Your task to perform on an android device: create a new album in the google photos Image 0: 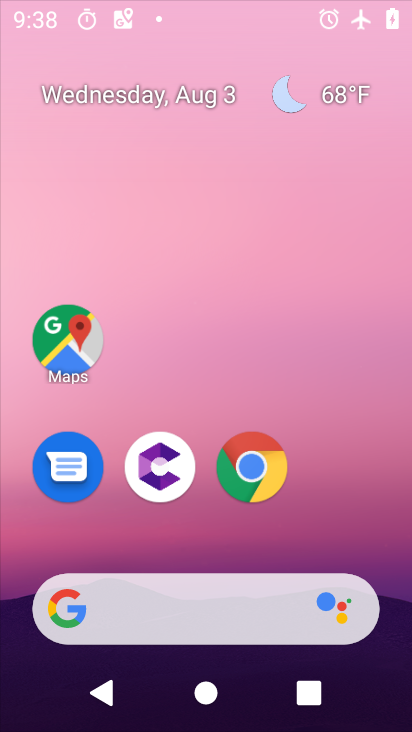
Step 0: drag from (317, 541) to (290, 50)
Your task to perform on an android device: create a new album in the google photos Image 1: 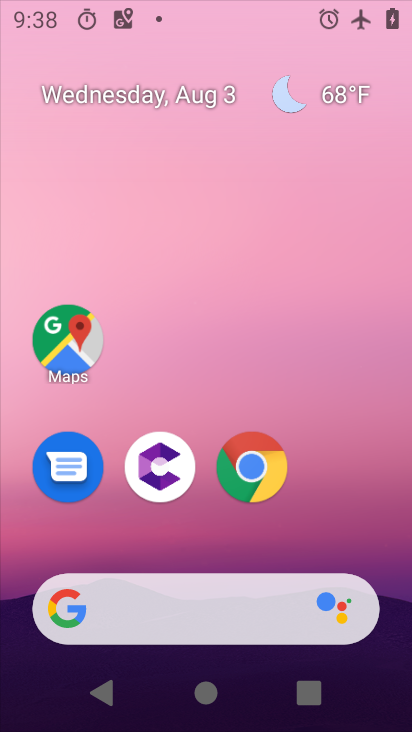
Step 1: drag from (331, 409) to (357, 148)
Your task to perform on an android device: create a new album in the google photos Image 2: 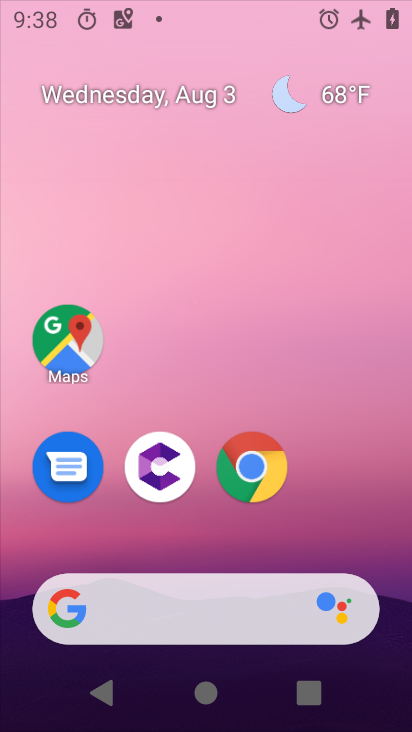
Step 2: click (309, 320)
Your task to perform on an android device: create a new album in the google photos Image 3: 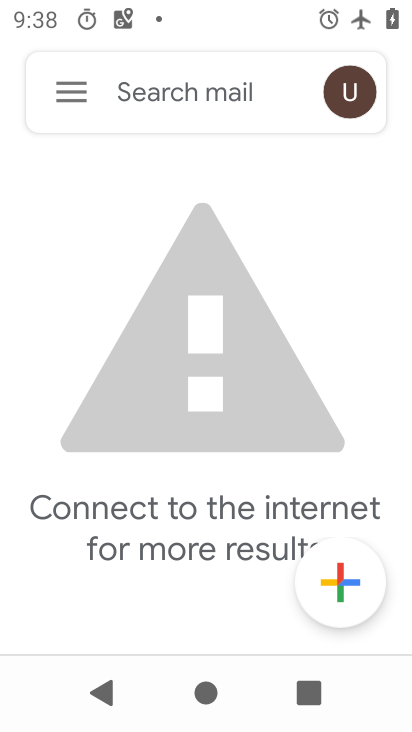
Step 3: drag from (345, 532) to (392, 290)
Your task to perform on an android device: create a new album in the google photos Image 4: 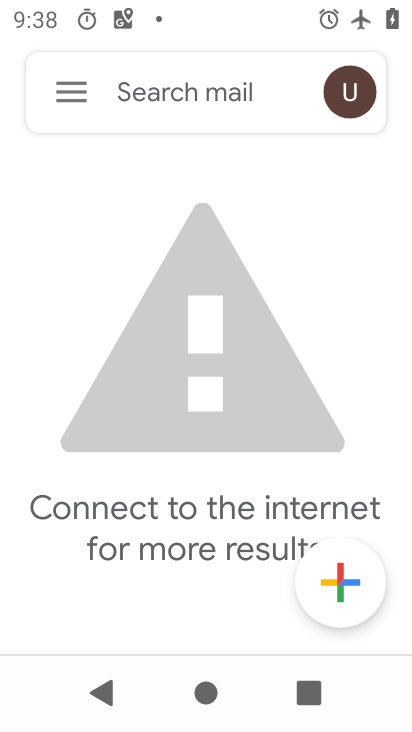
Step 4: press home button
Your task to perform on an android device: create a new album in the google photos Image 5: 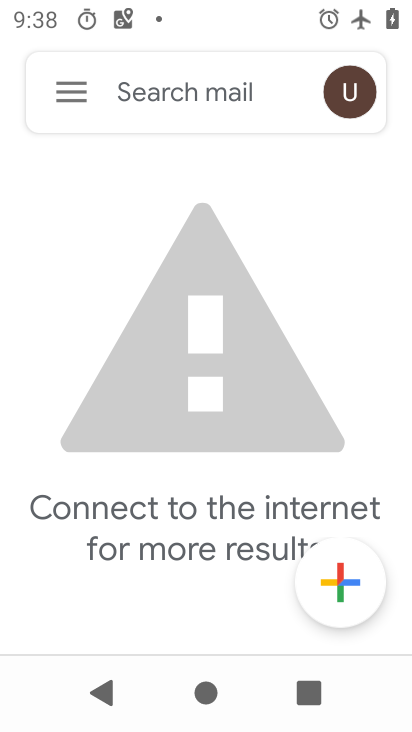
Step 5: press home button
Your task to perform on an android device: create a new album in the google photos Image 6: 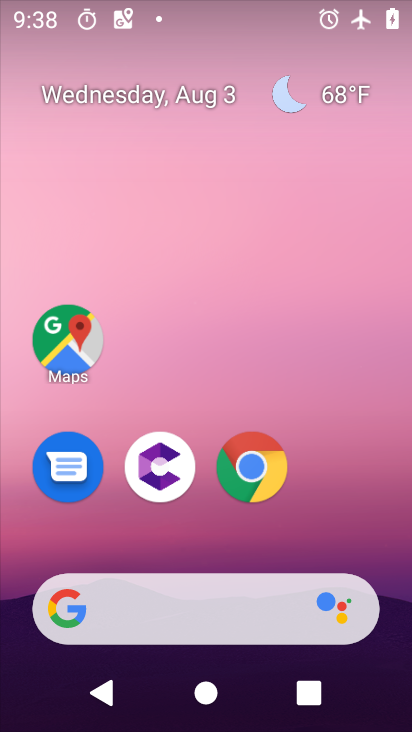
Step 6: drag from (361, 506) to (334, 83)
Your task to perform on an android device: create a new album in the google photos Image 7: 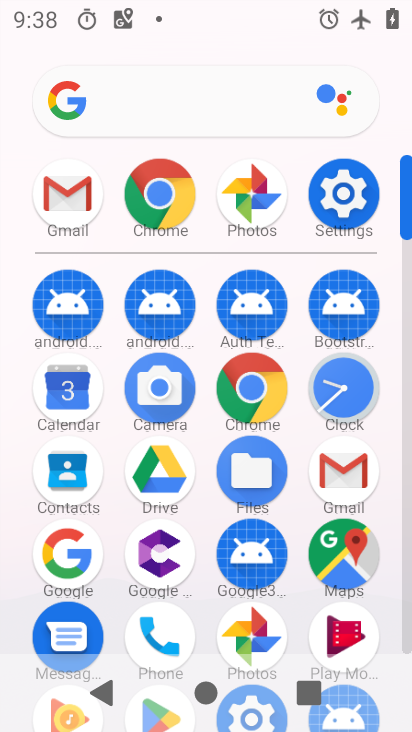
Step 7: click (267, 630)
Your task to perform on an android device: create a new album in the google photos Image 8: 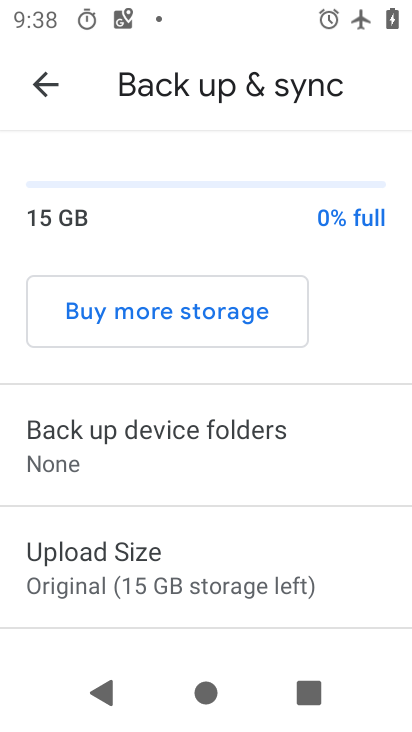
Step 8: press back button
Your task to perform on an android device: create a new album in the google photos Image 9: 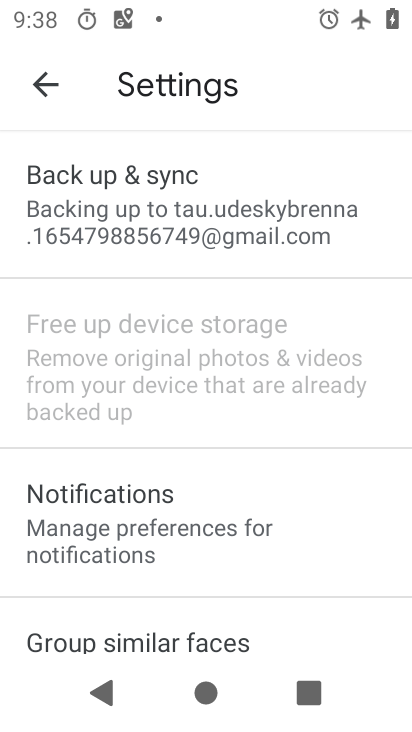
Step 9: press back button
Your task to perform on an android device: create a new album in the google photos Image 10: 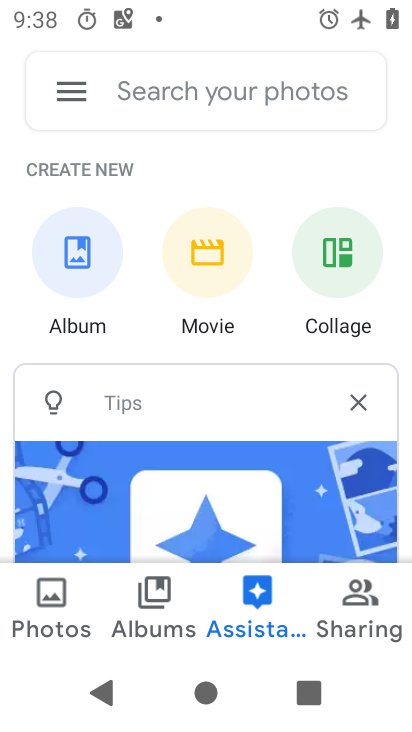
Step 10: click (153, 586)
Your task to perform on an android device: create a new album in the google photos Image 11: 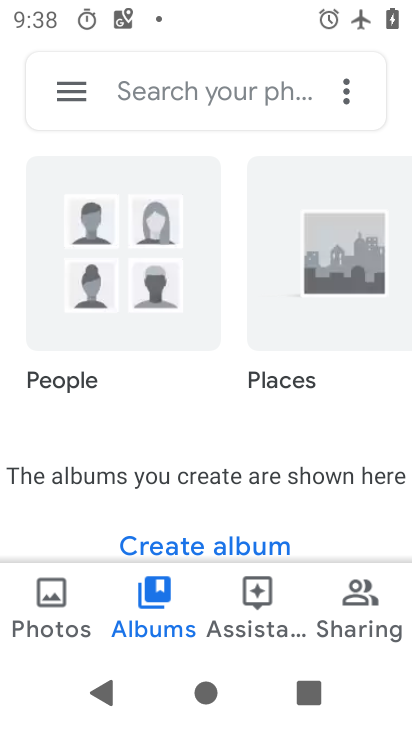
Step 11: click (210, 548)
Your task to perform on an android device: create a new album in the google photos Image 12: 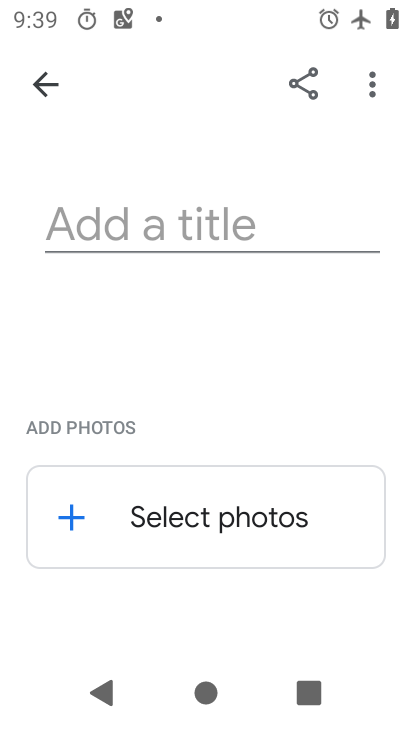
Step 12: click (305, 233)
Your task to perform on an android device: create a new album in the google photos Image 13: 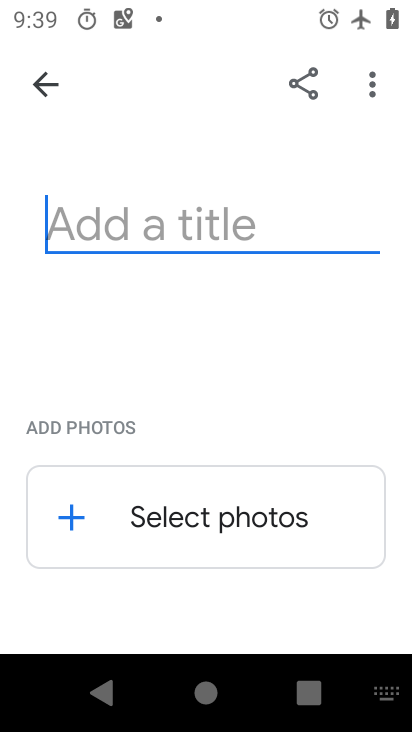
Step 13: type "god"
Your task to perform on an android device: create a new album in the google photos Image 14: 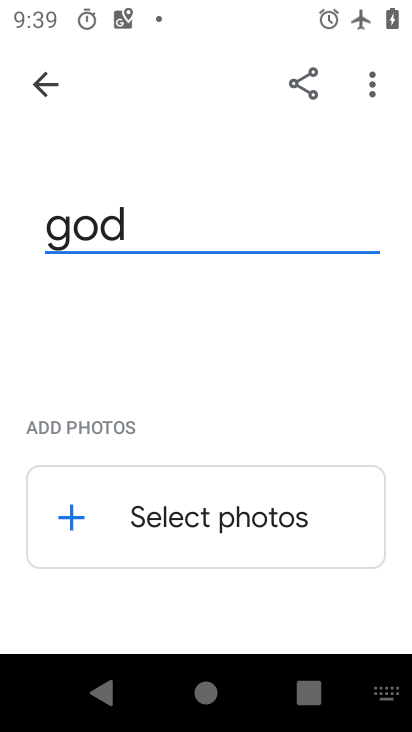
Step 14: click (51, 83)
Your task to perform on an android device: create a new album in the google photos Image 15: 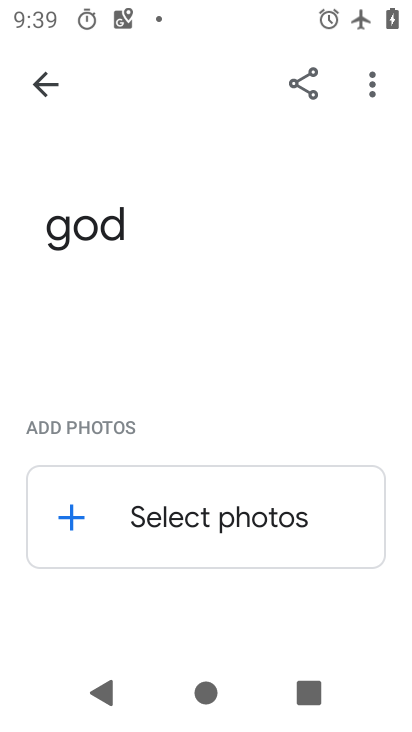
Step 15: click (54, 91)
Your task to perform on an android device: create a new album in the google photos Image 16: 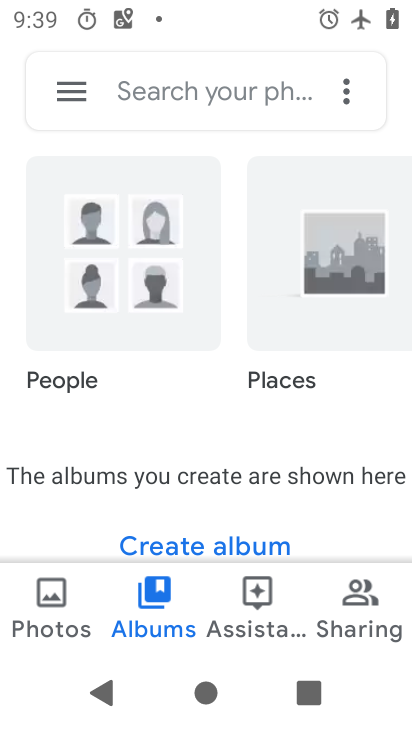
Step 16: task complete